Your task to perform on an android device: allow notifications from all sites in the chrome app Image 0: 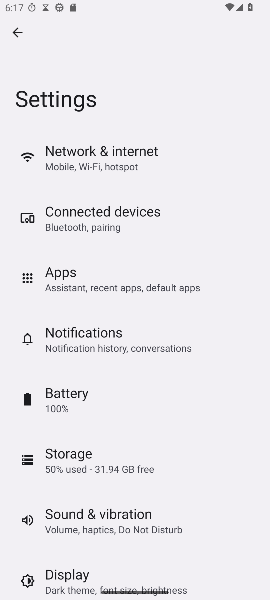
Step 0: press home button
Your task to perform on an android device: allow notifications from all sites in the chrome app Image 1: 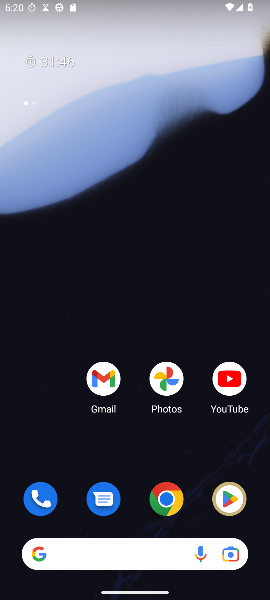
Step 1: drag from (170, 503) to (123, 37)
Your task to perform on an android device: allow notifications from all sites in the chrome app Image 2: 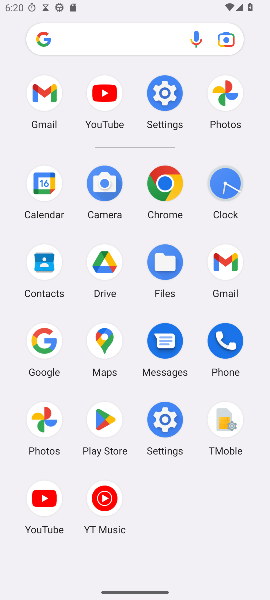
Step 2: click (172, 188)
Your task to perform on an android device: allow notifications from all sites in the chrome app Image 3: 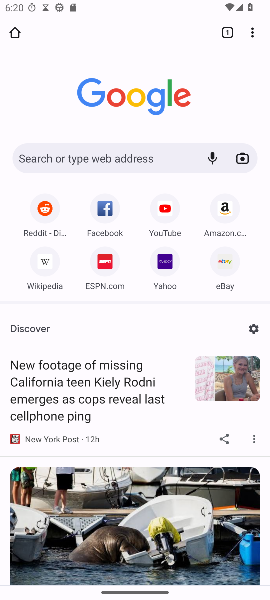
Step 3: drag from (254, 38) to (164, 298)
Your task to perform on an android device: allow notifications from all sites in the chrome app Image 4: 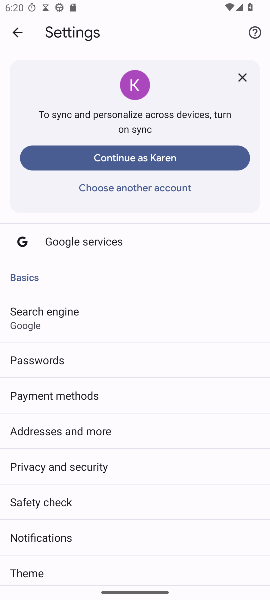
Step 4: drag from (64, 551) to (61, 220)
Your task to perform on an android device: allow notifications from all sites in the chrome app Image 5: 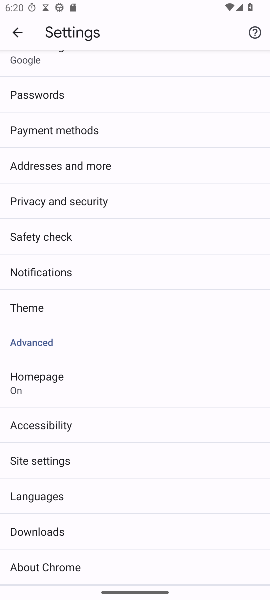
Step 5: click (73, 468)
Your task to perform on an android device: allow notifications from all sites in the chrome app Image 6: 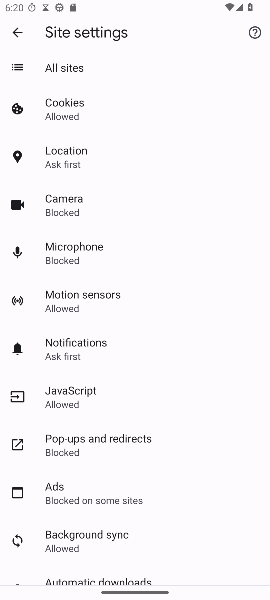
Step 6: click (59, 354)
Your task to perform on an android device: allow notifications from all sites in the chrome app Image 7: 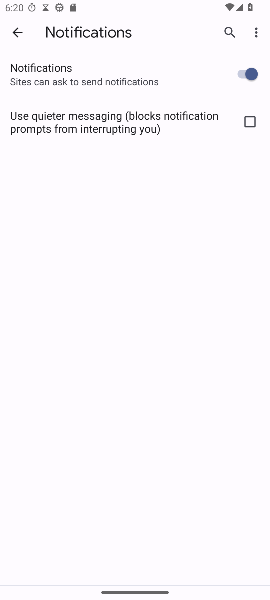
Step 7: task complete